Your task to perform on an android device: Open notification settings Image 0: 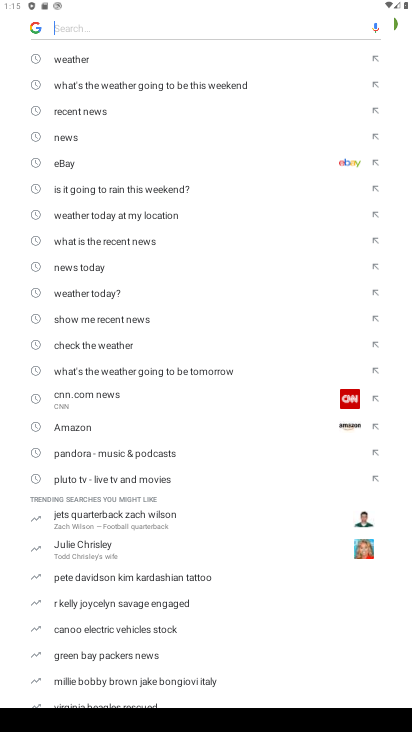
Step 0: press home button
Your task to perform on an android device: Open notification settings Image 1: 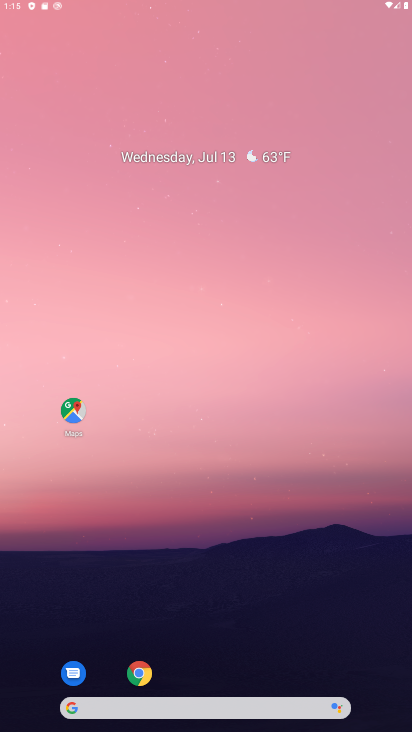
Step 1: drag from (247, 654) to (277, 159)
Your task to perform on an android device: Open notification settings Image 2: 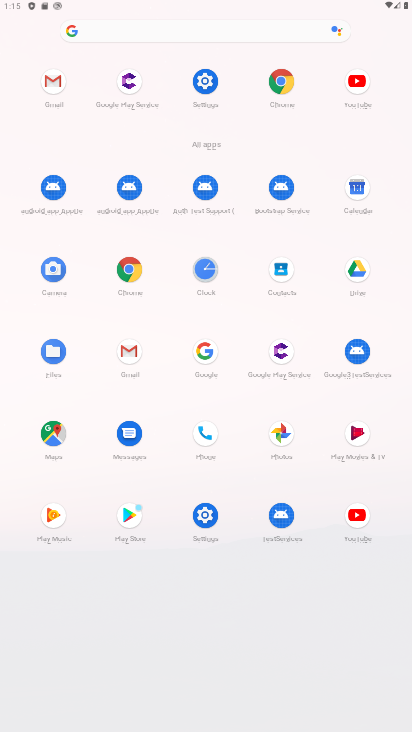
Step 2: click (206, 75)
Your task to perform on an android device: Open notification settings Image 3: 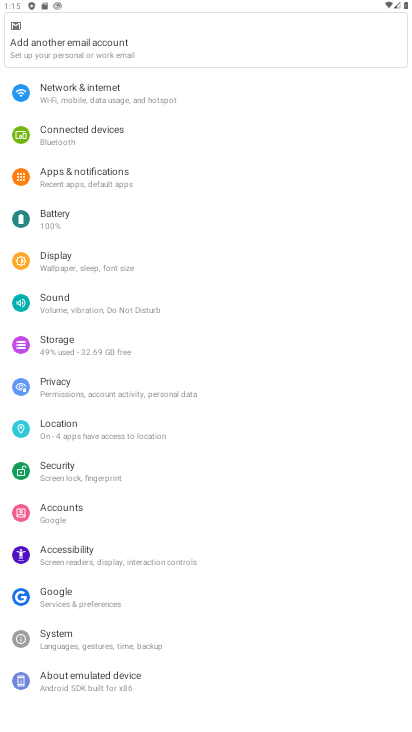
Step 3: click (87, 162)
Your task to perform on an android device: Open notification settings Image 4: 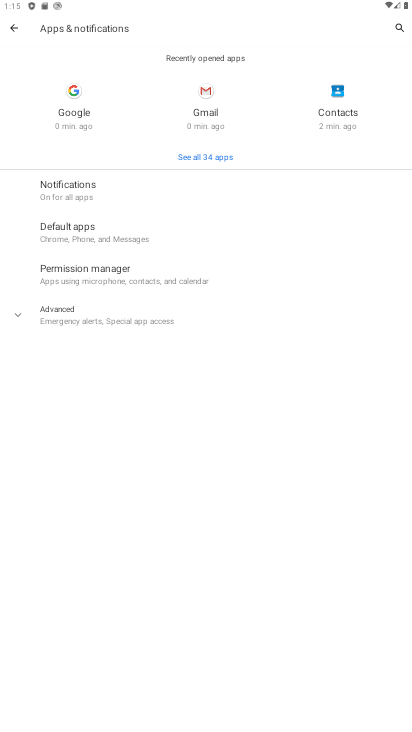
Step 4: click (103, 192)
Your task to perform on an android device: Open notification settings Image 5: 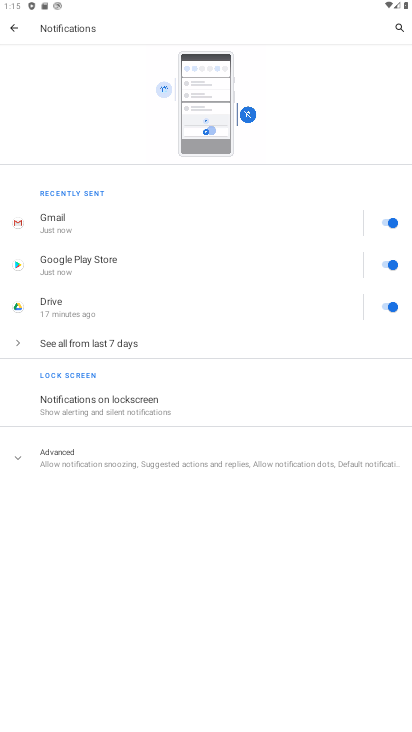
Step 5: task complete